Your task to perform on an android device: install app "Messenger Lite" Image 0: 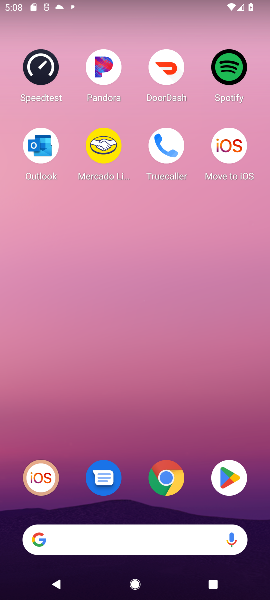
Step 0: press home button
Your task to perform on an android device: install app "Messenger Lite" Image 1: 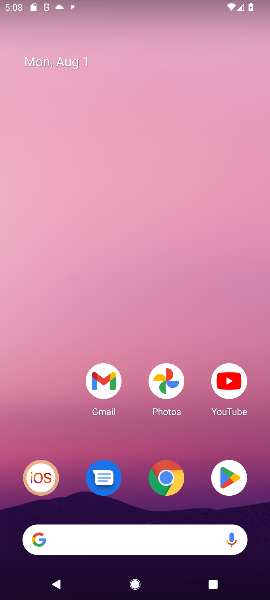
Step 1: click (234, 476)
Your task to perform on an android device: install app "Messenger Lite" Image 2: 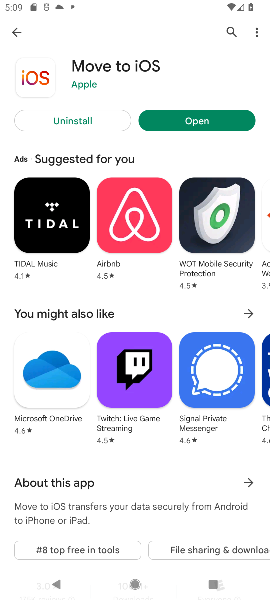
Step 2: click (230, 31)
Your task to perform on an android device: install app "Messenger Lite" Image 3: 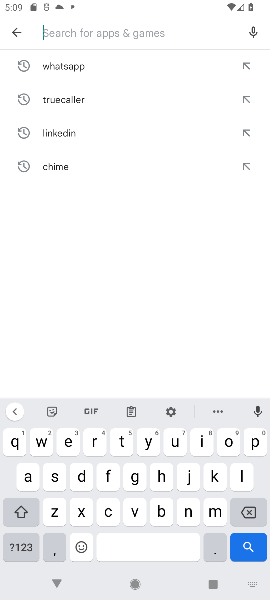
Step 3: click (214, 511)
Your task to perform on an android device: install app "Messenger Lite" Image 4: 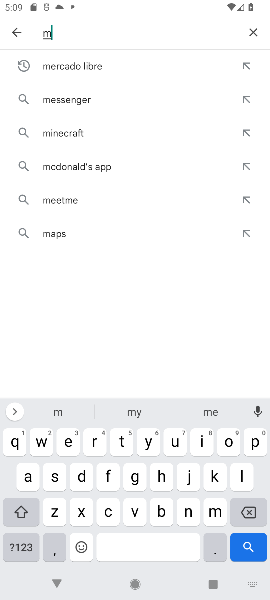
Step 4: click (64, 442)
Your task to perform on an android device: install app "Messenger Lite" Image 5: 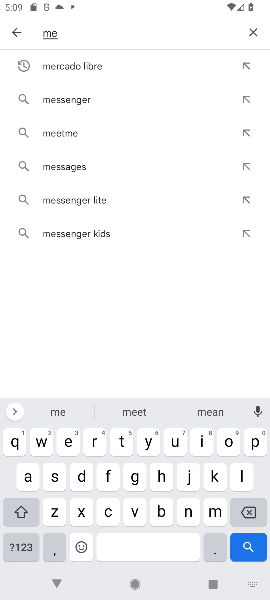
Step 5: click (91, 108)
Your task to perform on an android device: install app "Messenger Lite" Image 6: 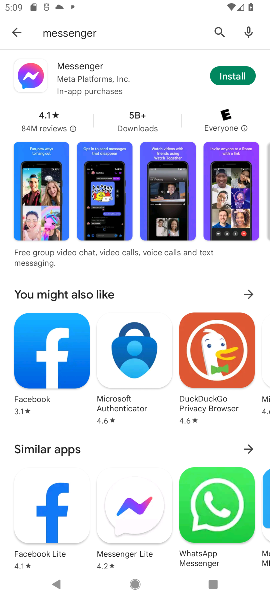
Step 6: click (232, 76)
Your task to perform on an android device: install app "Messenger Lite" Image 7: 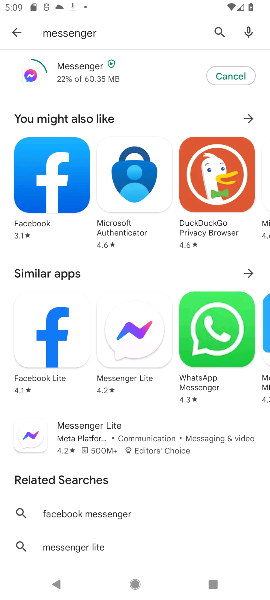
Step 7: click (224, 79)
Your task to perform on an android device: install app "Messenger Lite" Image 8: 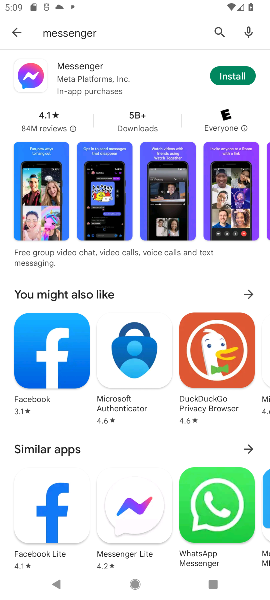
Step 8: click (133, 339)
Your task to perform on an android device: install app "Messenger Lite" Image 9: 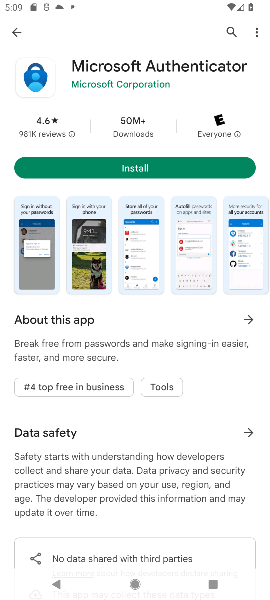
Step 9: click (16, 26)
Your task to perform on an android device: install app "Messenger Lite" Image 10: 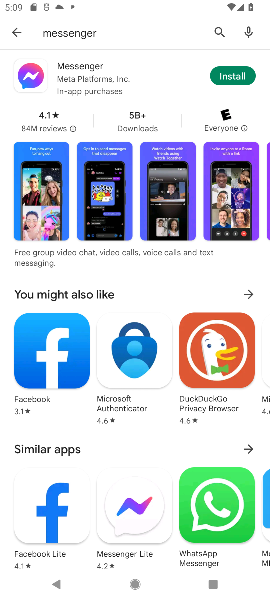
Step 10: click (123, 516)
Your task to perform on an android device: install app "Messenger Lite" Image 11: 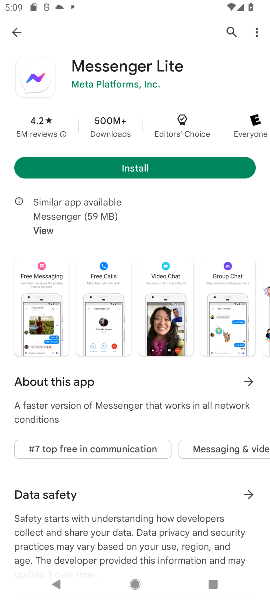
Step 11: click (152, 167)
Your task to perform on an android device: install app "Messenger Lite" Image 12: 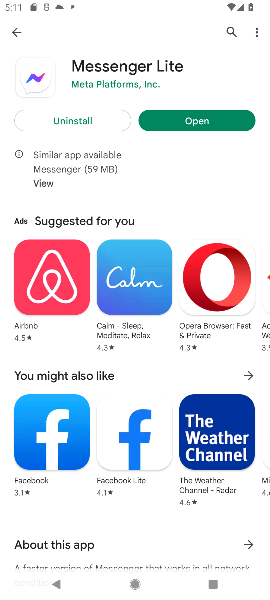
Step 12: task complete